Your task to perform on an android device: Open Maps and search for coffee Image 0: 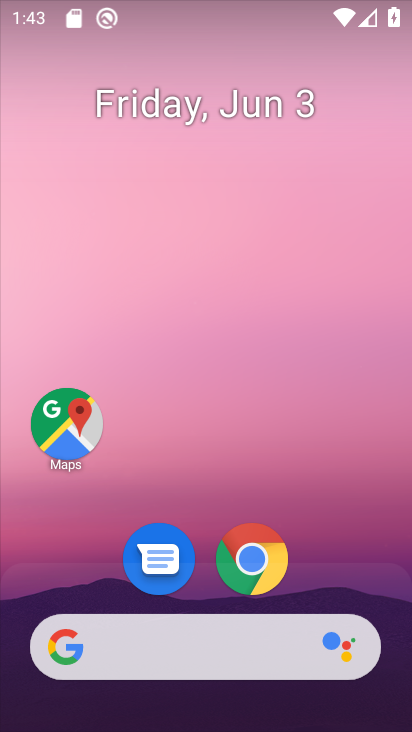
Step 0: click (77, 426)
Your task to perform on an android device: Open Maps and search for coffee Image 1: 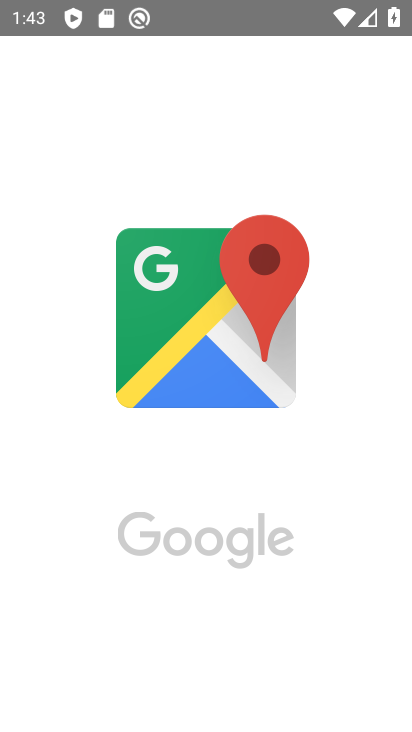
Step 1: click (338, 574)
Your task to perform on an android device: Open Maps and search for coffee Image 2: 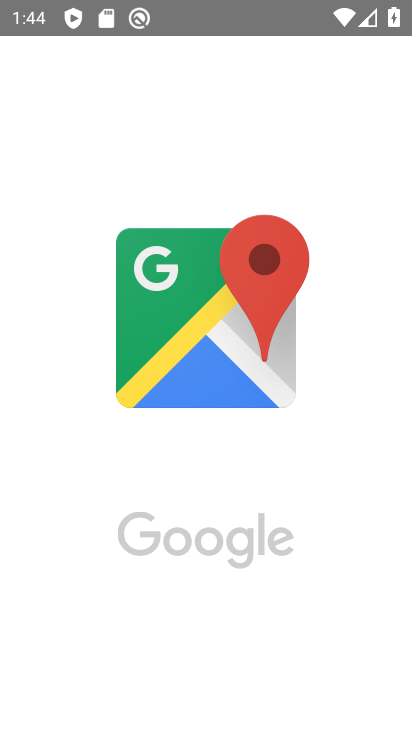
Step 2: task complete